Your task to perform on an android device: check android version Image 0: 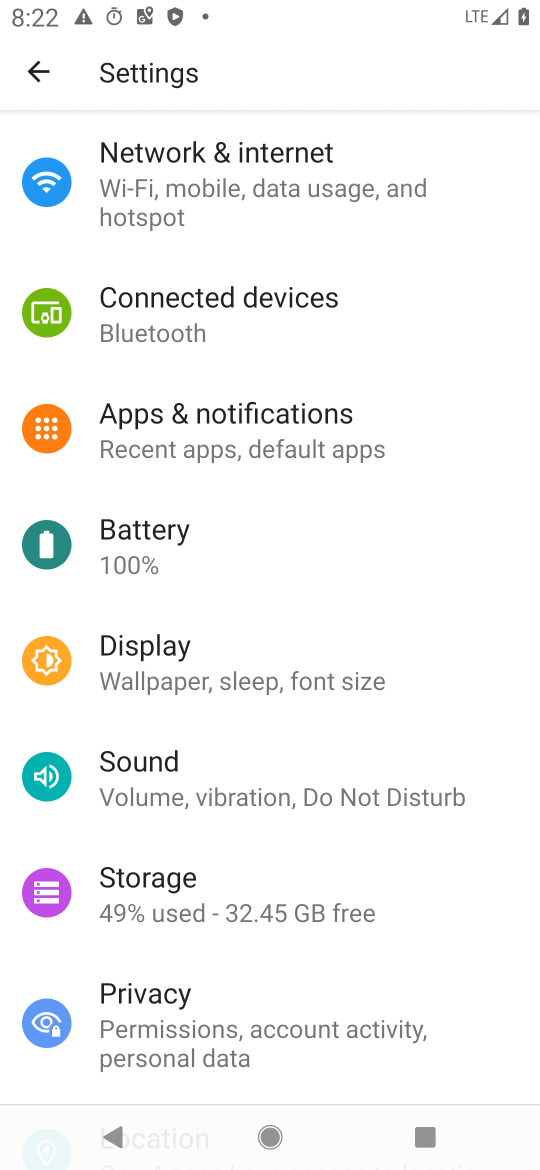
Step 0: click (431, 0)
Your task to perform on an android device: check android version Image 1: 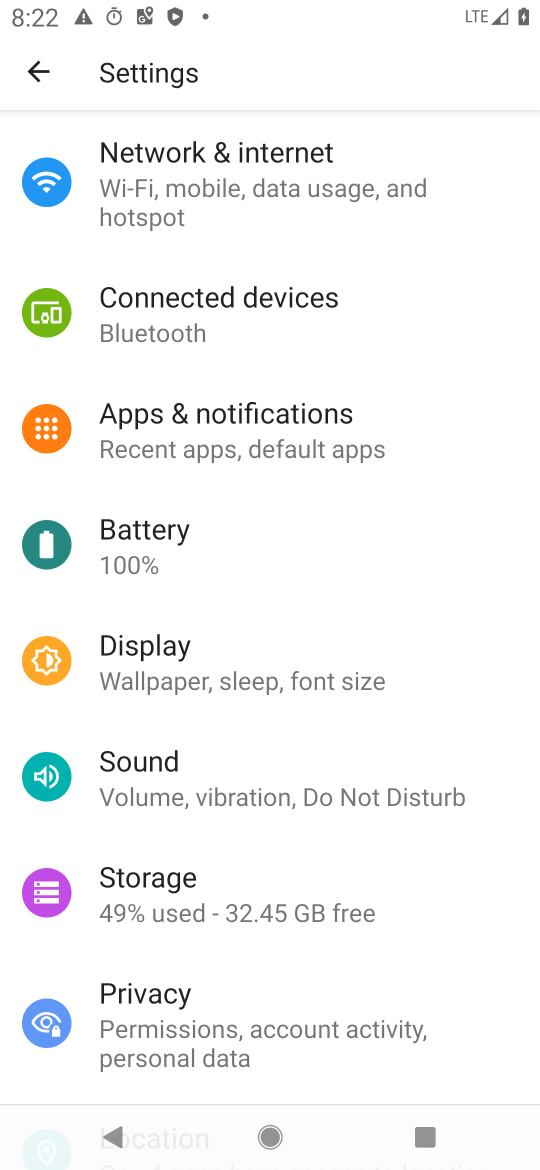
Step 1: drag from (218, 968) to (290, 224)
Your task to perform on an android device: check android version Image 2: 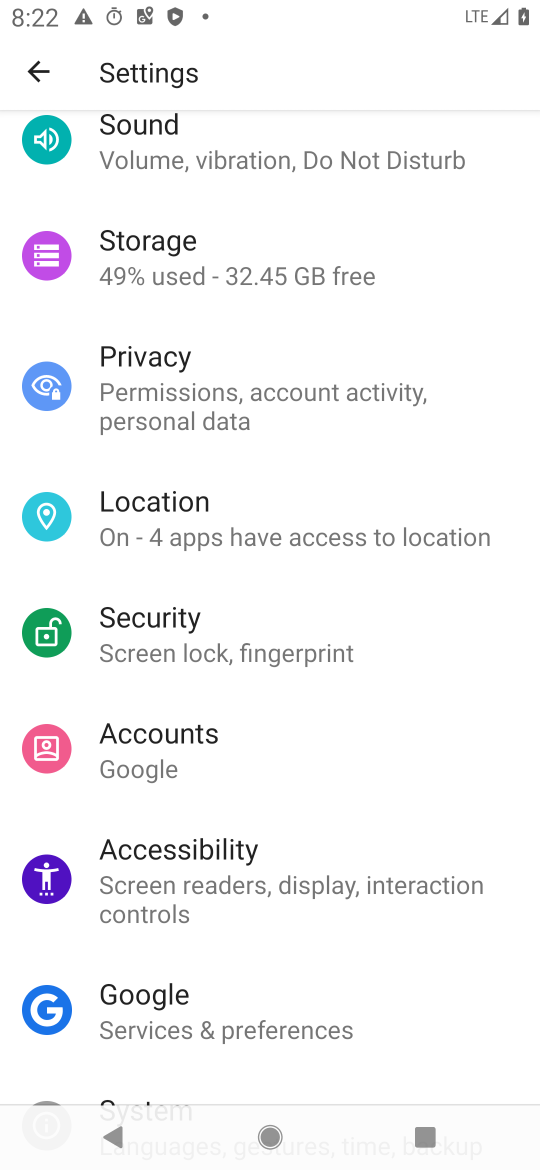
Step 2: drag from (234, 985) to (292, 541)
Your task to perform on an android device: check android version Image 3: 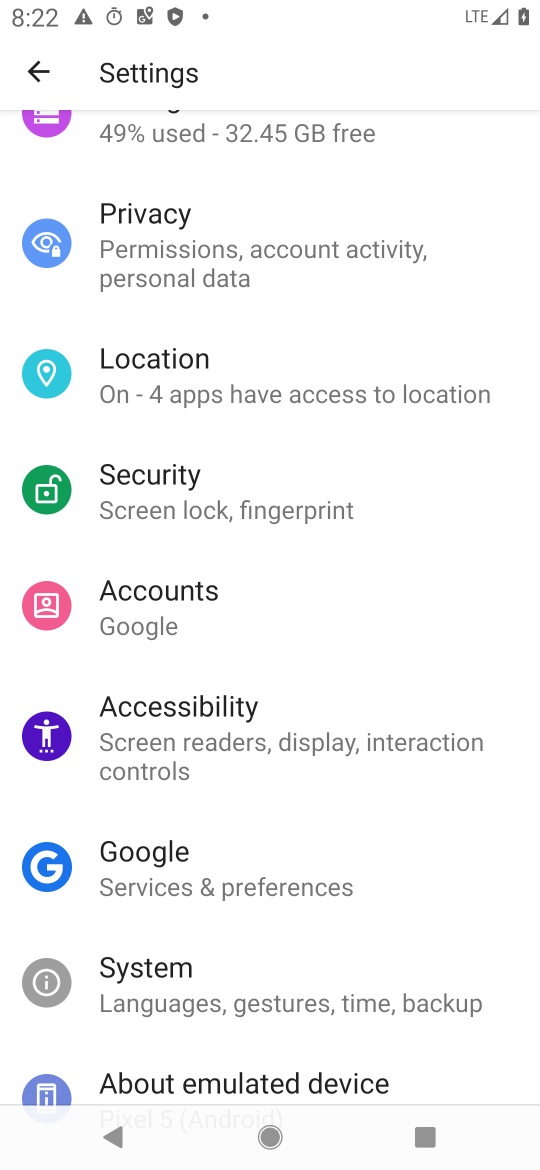
Step 3: drag from (294, 1025) to (363, 315)
Your task to perform on an android device: check android version Image 4: 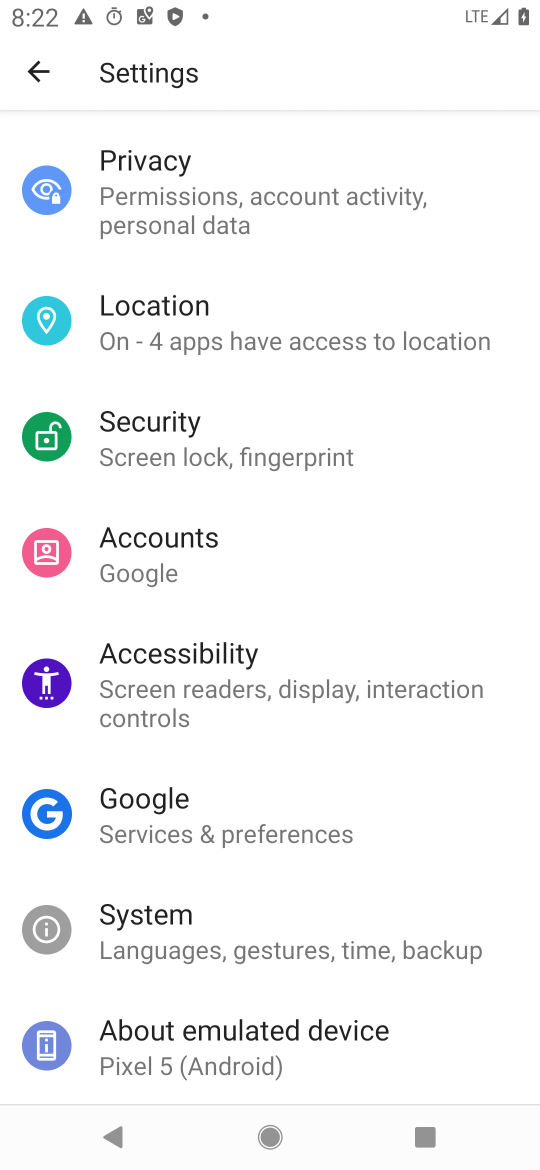
Step 4: click (252, 1048)
Your task to perform on an android device: check android version Image 5: 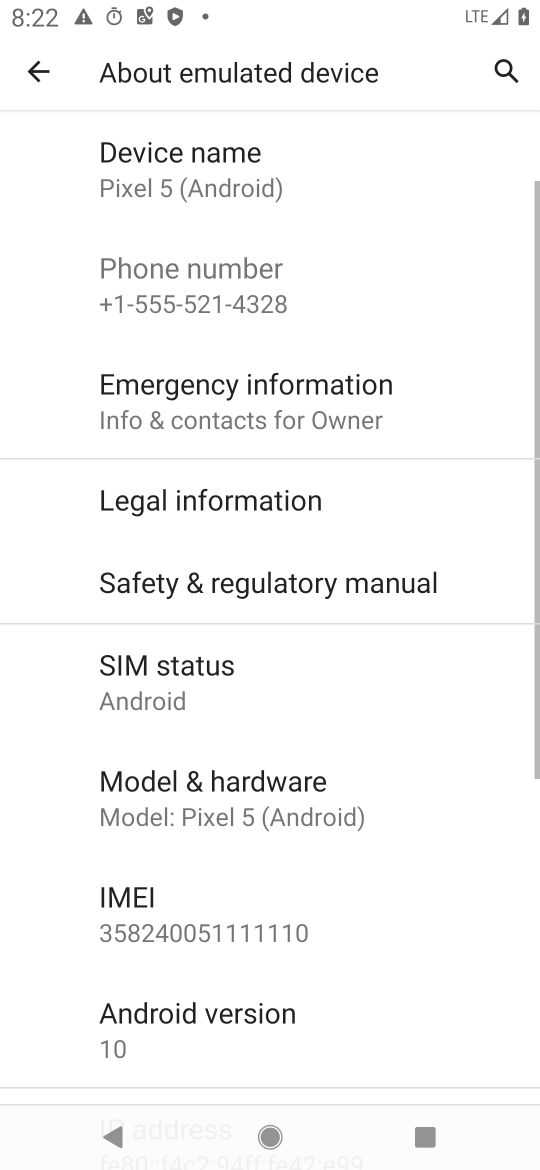
Step 5: drag from (275, 1013) to (324, 325)
Your task to perform on an android device: check android version Image 6: 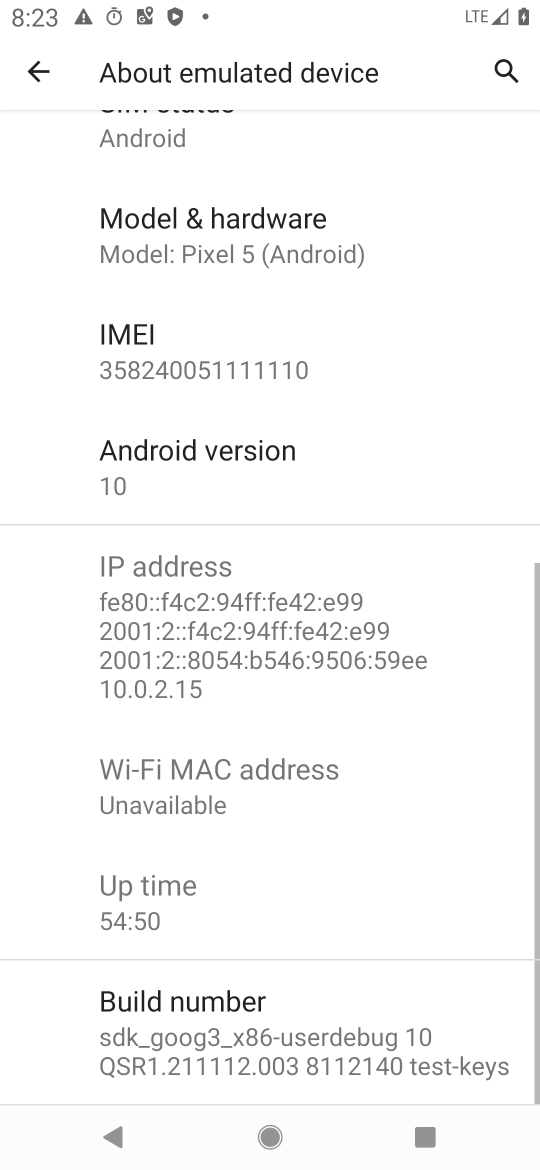
Step 6: click (255, 455)
Your task to perform on an android device: check android version Image 7: 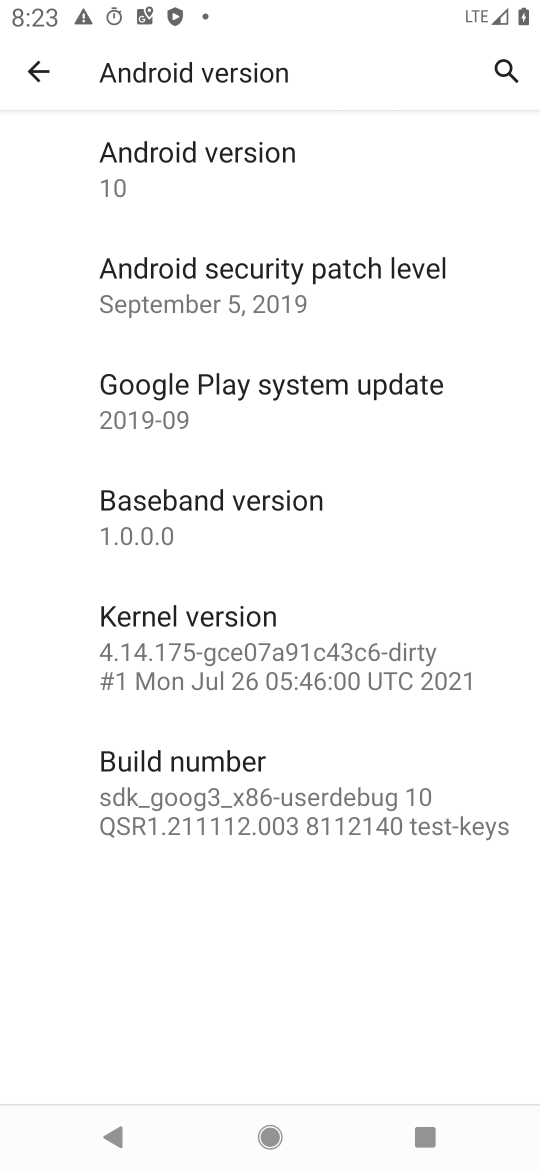
Step 7: click (215, 162)
Your task to perform on an android device: check android version Image 8: 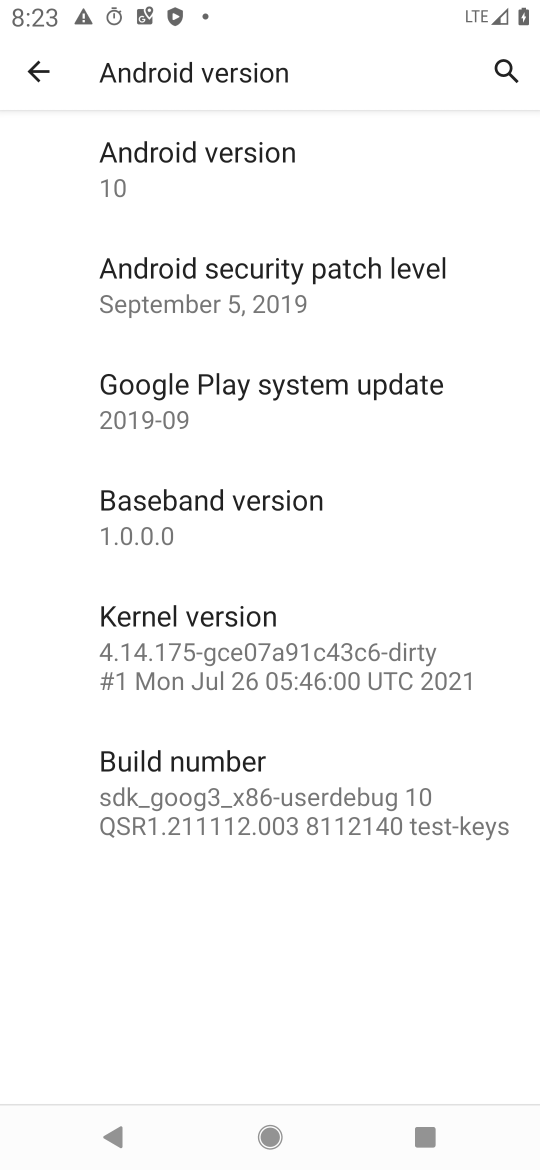
Step 8: task complete